Your task to perform on an android device: open sync settings in chrome Image 0: 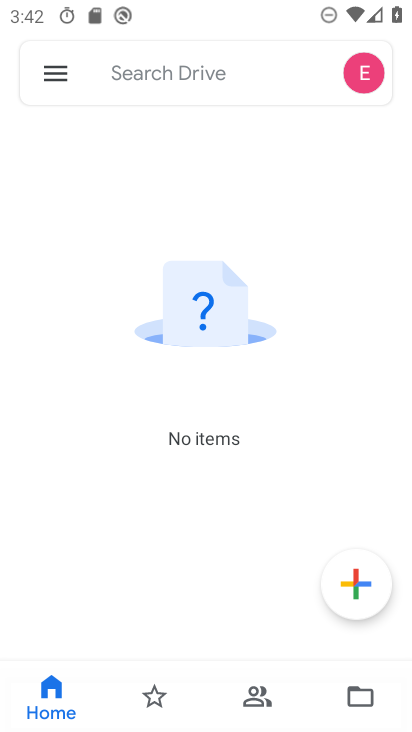
Step 0: press home button
Your task to perform on an android device: open sync settings in chrome Image 1: 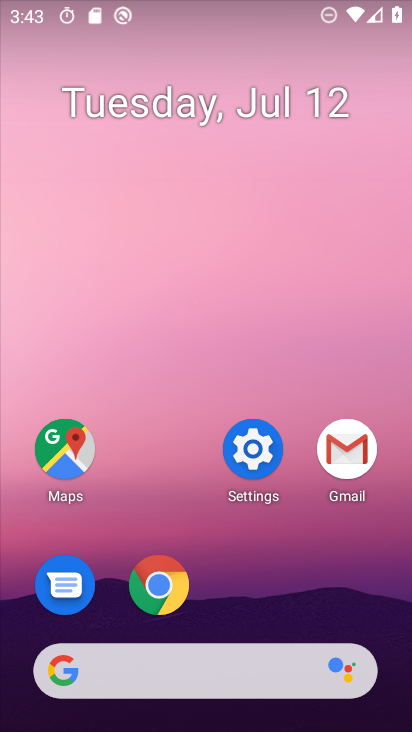
Step 1: click (169, 576)
Your task to perform on an android device: open sync settings in chrome Image 2: 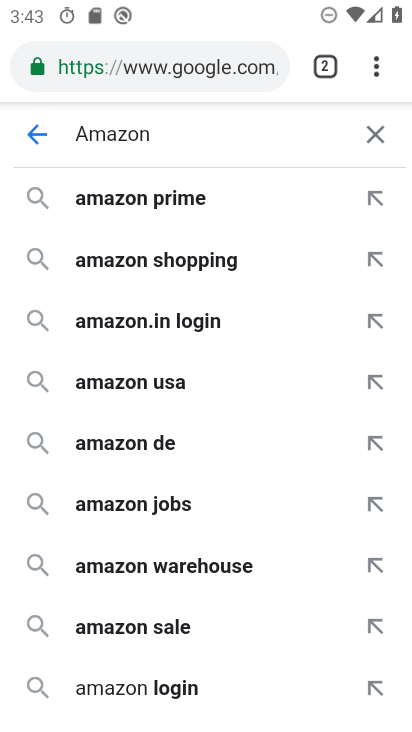
Step 2: click (376, 72)
Your task to perform on an android device: open sync settings in chrome Image 3: 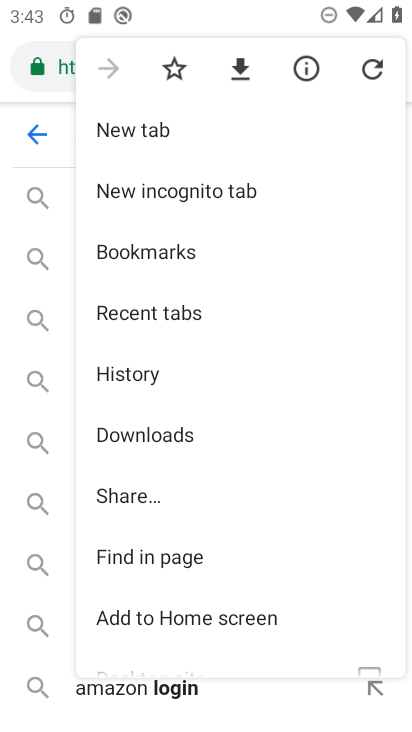
Step 3: drag from (311, 625) to (271, 274)
Your task to perform on an android device: open sync settings in chrome Image 4: 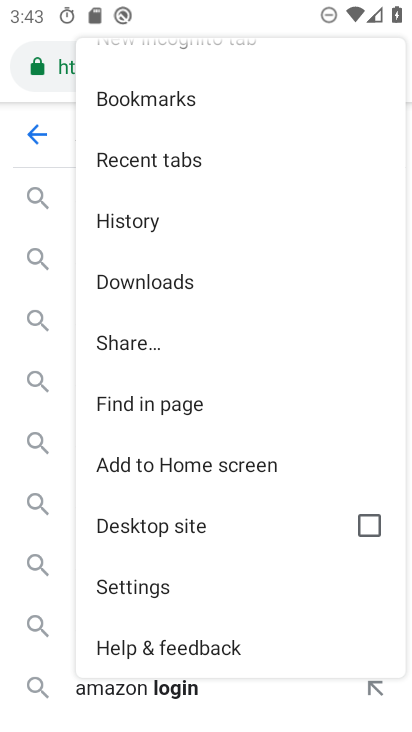
Step 4: click (108, 585)
Your task to perform on an android device: open sync settings in chrome Image 5: 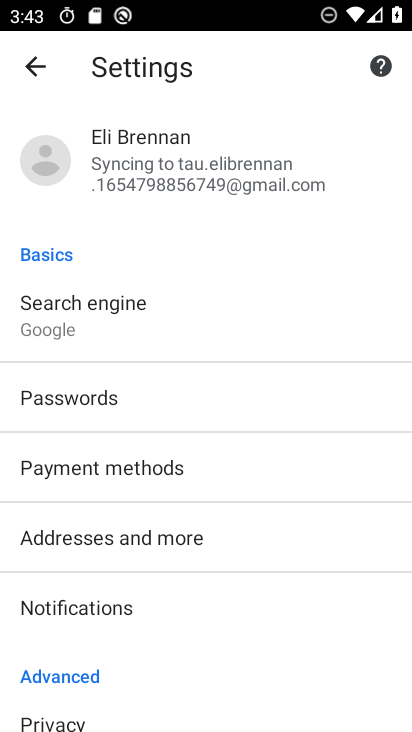
Step 5: drag from (233, 681) to (199, 217)
Your task to perform on an android device: open sync settings in chrome Image 6: 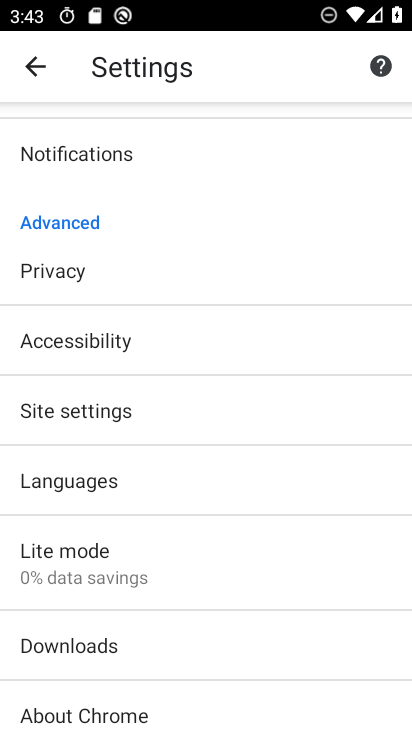
Step 6: drag from (215, 684) to (180, 324)
Your task to perform on an android device: open sync settings in chrome Image 7: 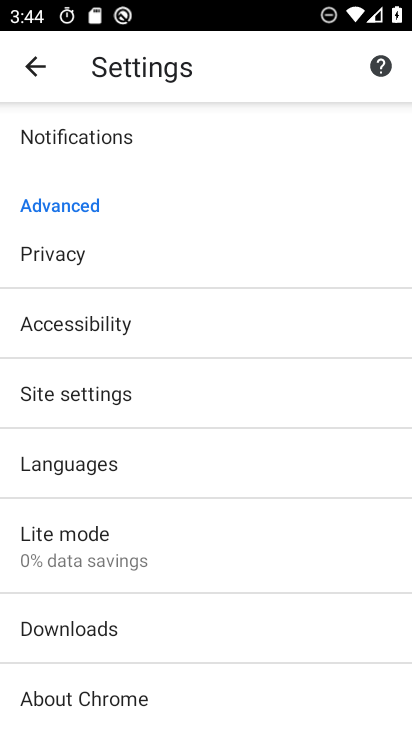
Step 7: drag from (241, 640) to (240, 340)
Your task to perform on an android device: open sync settings in chrome Image 8: 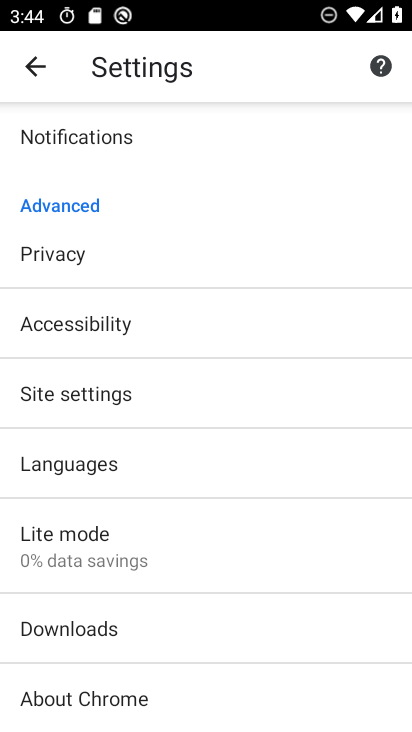
Step 8: click (67, 396)
Your task to perform on an android device: open sync settings in chrome Image 9: 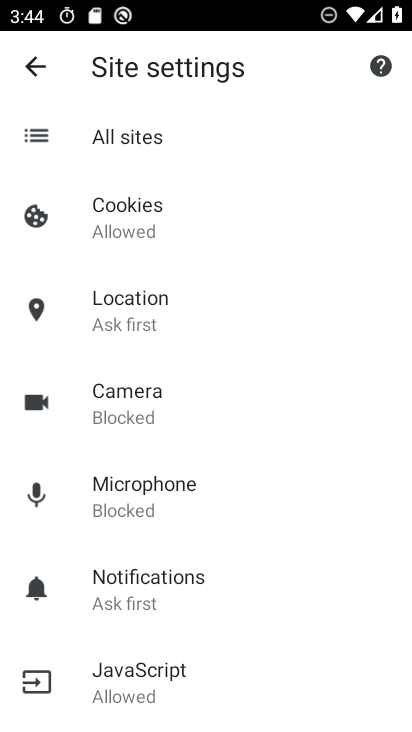
Step 9: drag from (262, 652) to (221, 265)
Your task to perform on an android device: open sync settings in chrome Image 10: 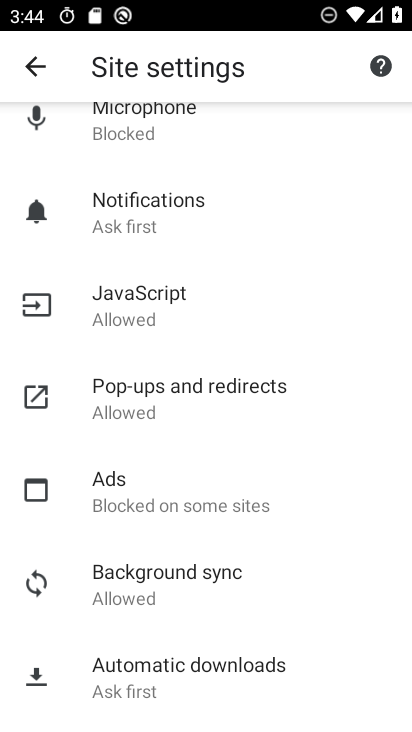
Step 10: click (157, 565)
Your task to perform on an android device: open sync settings in chrome Image 11: 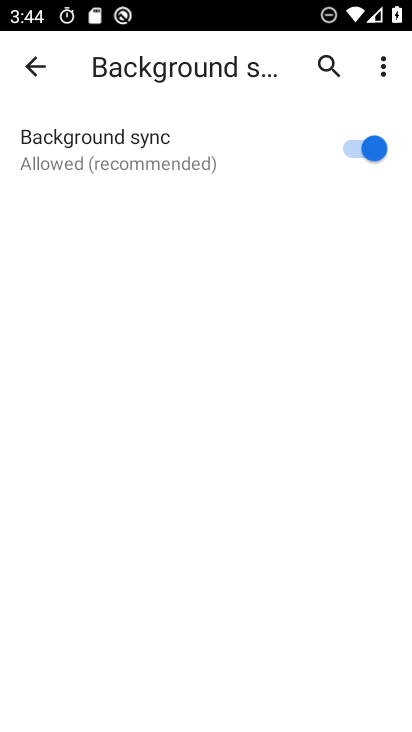
Step 11: task complete